Your task to perform on an android device: turn notification dots off Image 0: 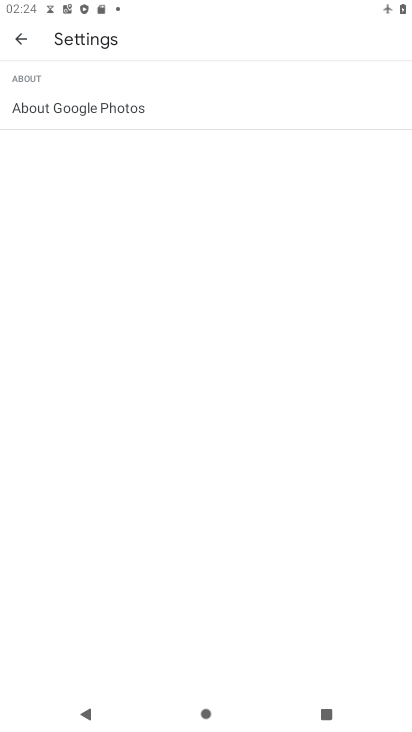
Step 0: press home button
Your task to perform on an android device: turn notification dots off Image 1: 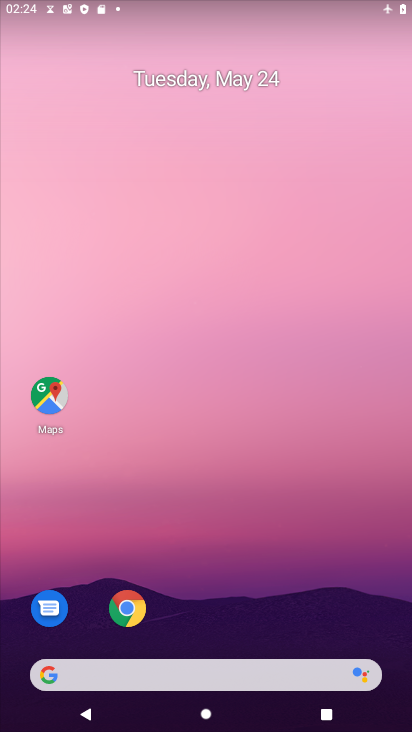
Step 1: drag from (243, 625) to (221, 0)
Your task to perform on an android device: turn notification dots off Image 2: 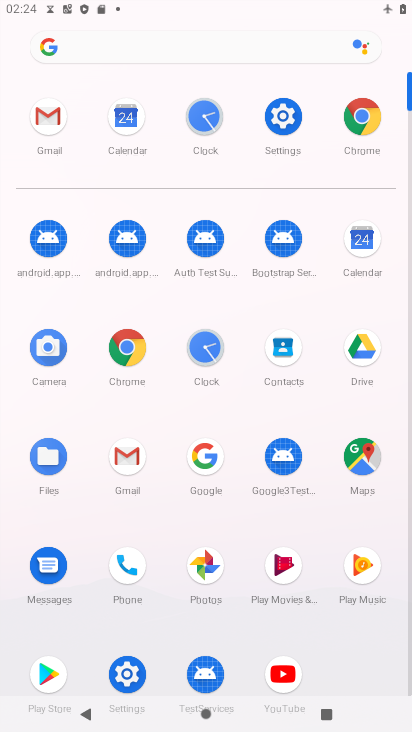
Step 2: click (295, 104)
Your task to perform on an android device: turn notification dots off Image 3: 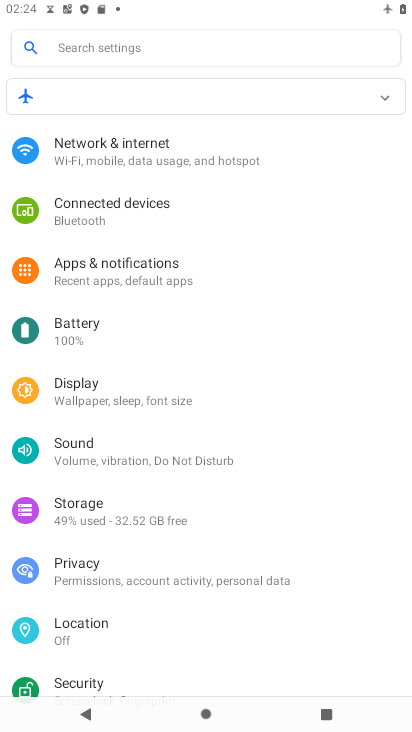
Step 3: click (159, 274)
Your task to perform on an android device: turn notification dots off Image 4: 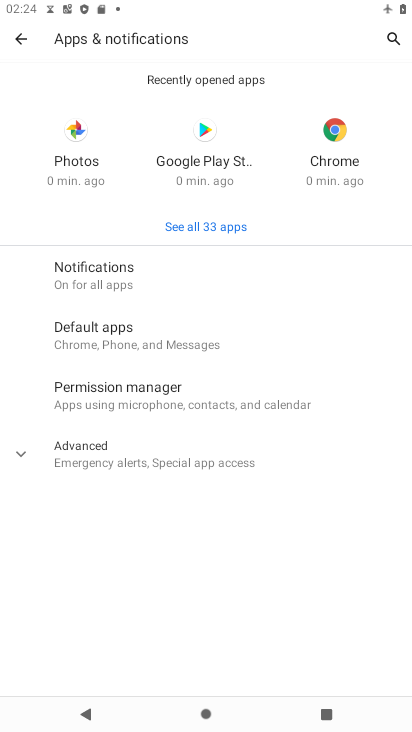
Step 4: click (159, 274)
Your task to perform on an android device: turn notification dots off Image 5: 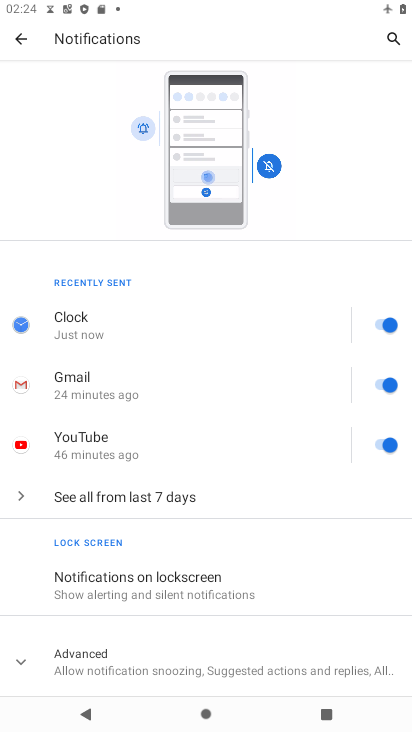
Step 5: drag from (229, 595) to (202, 303)
Your task to perform on an android device: turn notification dots off Image 6: 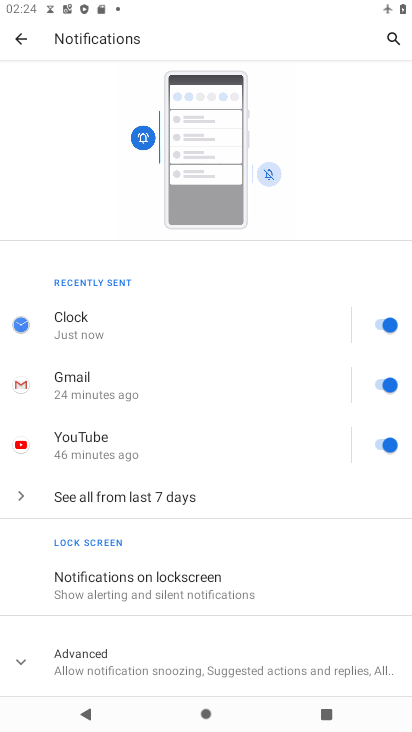
Step 6: click (219, 669)
Your task to perform on an android device: turn notification dots off Image 7: 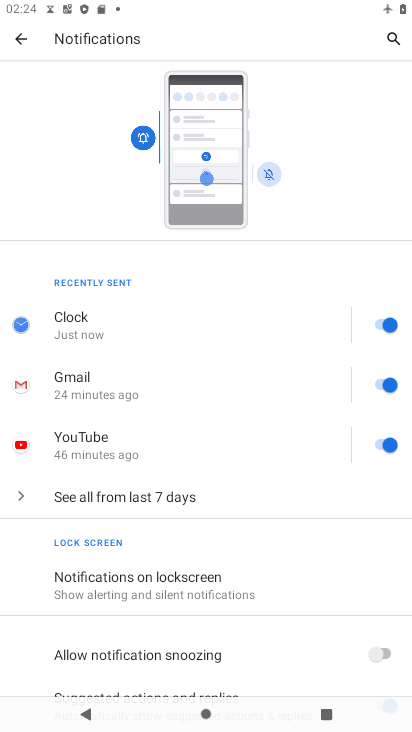
Step 7: task complete